Your task to perform on an android device: turn on priority inbox in the gmail app Image 0: 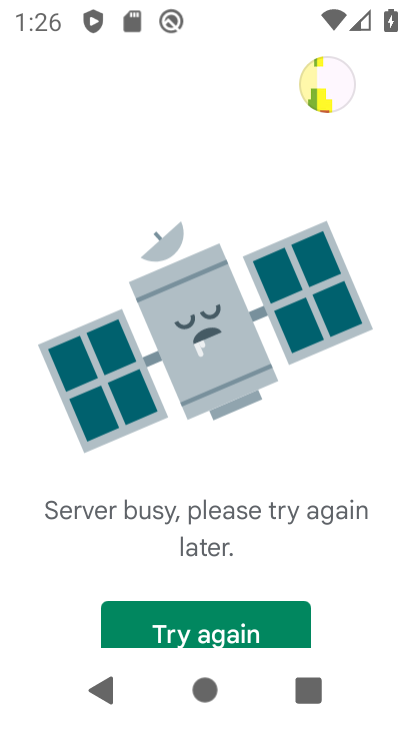
Step 0: press home button
Your task to perform on an android device: turn on priority inbox in the gmail app Image 1: 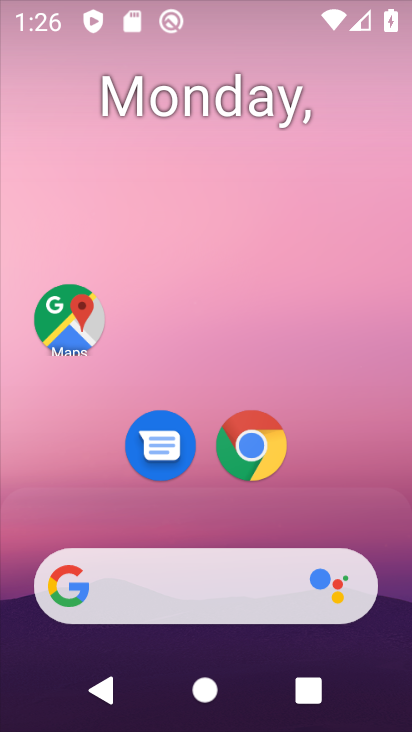
Step 1: drag from (210, 521) to (232, 33)
Your task to perform on an android device: turn on priority inbox in the gmail app Image 2: 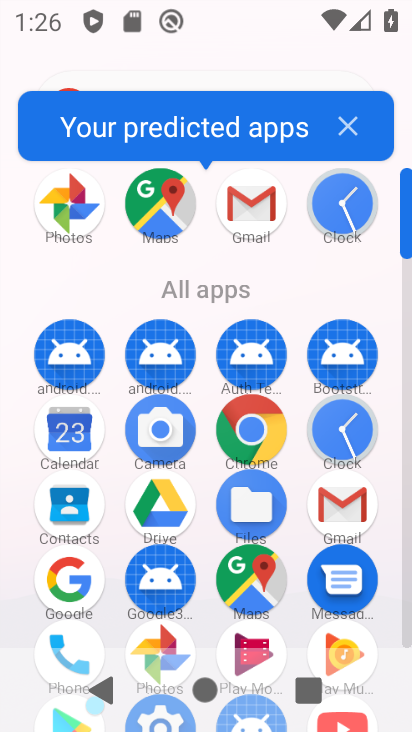
Step 2: click (259, 192)
Your task to perform on an android device: turn on priority inbox in the gmail app Image 3: 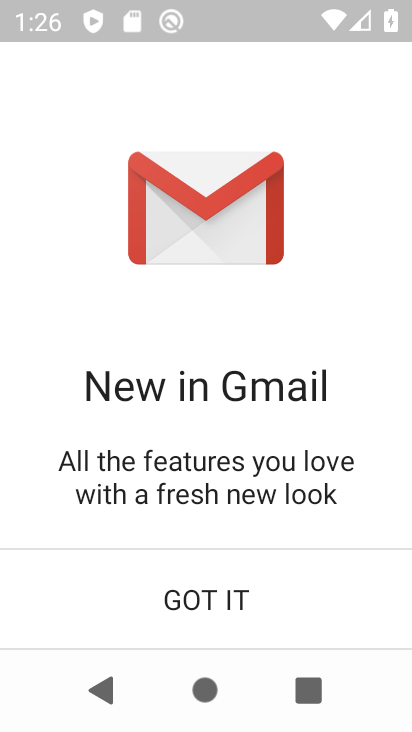
Step 3: click (206, 591)
Your task to perform on an android device: turn on priority inbox in the gmail app Image 4: 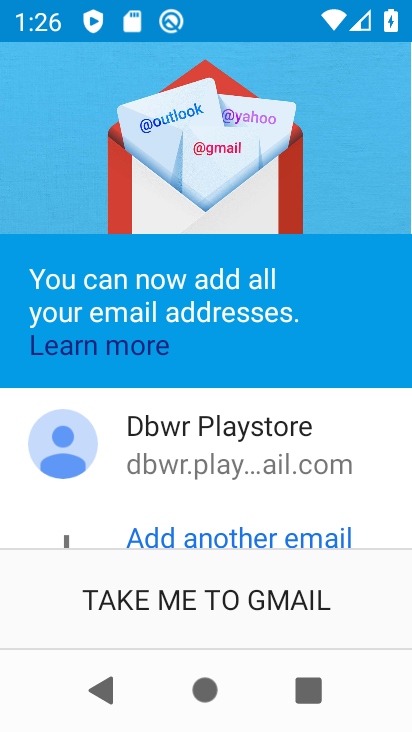
Step 4: click (230, 612)
Your task to perform on an android device: turn on priority inbox in the gmail app Image 5: 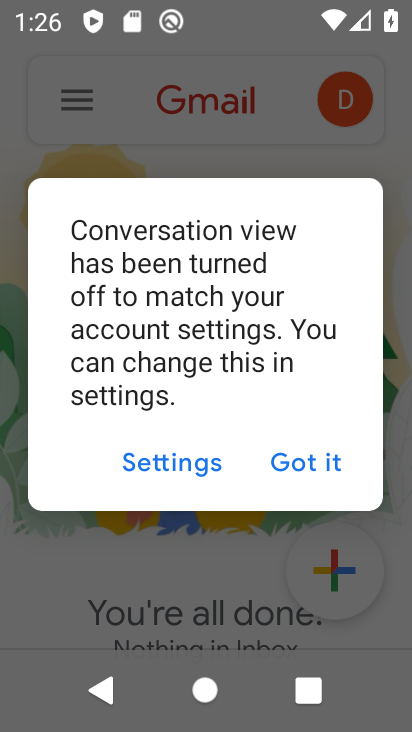
Step 5: click (303, 473)
Your task to perform on an android device: turn on priority inbox in the gmail app Image 6: 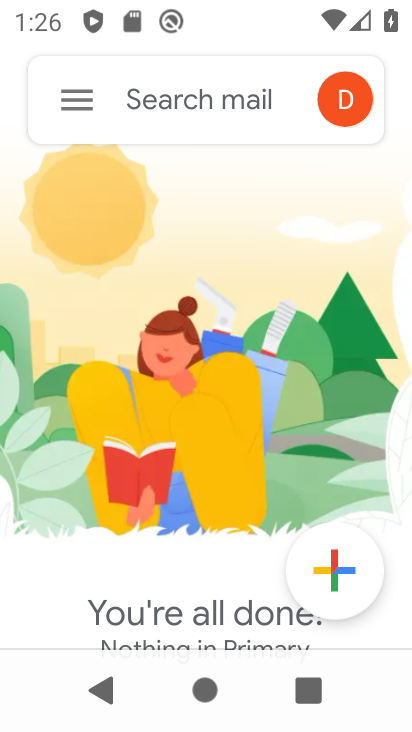
Step 6: click (85, 110)
Your task to perform on an android device: turn on priority inbox in the gmail app Image 7: 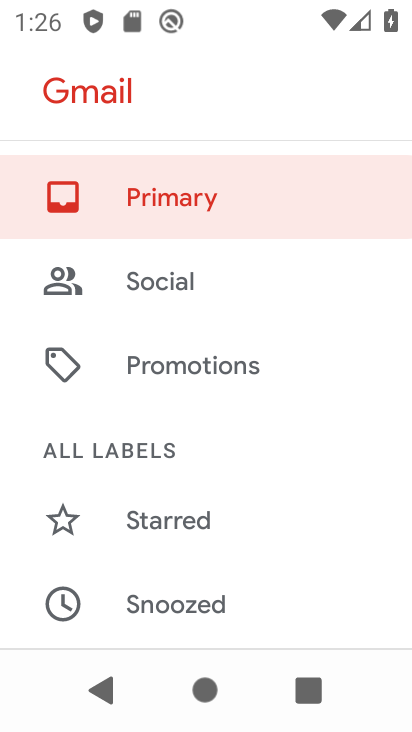
Step 7: drag from (190, 557) to (218, 63)
Your task to perform on an android device: turn on priority inbox in the gmail app Image 8: 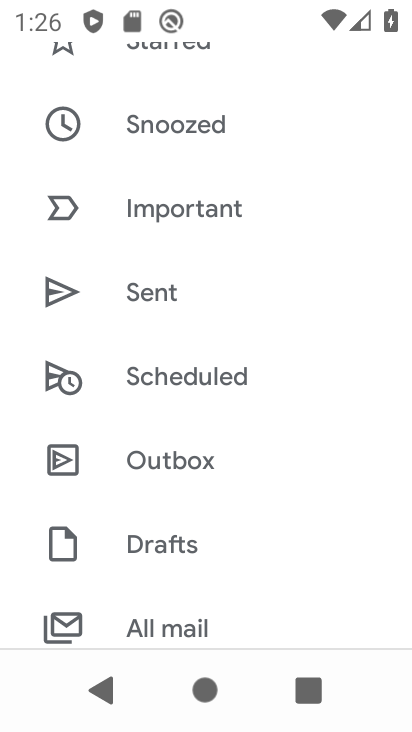
Step 8: drag from (190, 572) to (254, 61)
Your task to perform on an android device: turn on priority inbox in the gmail app Image 9: 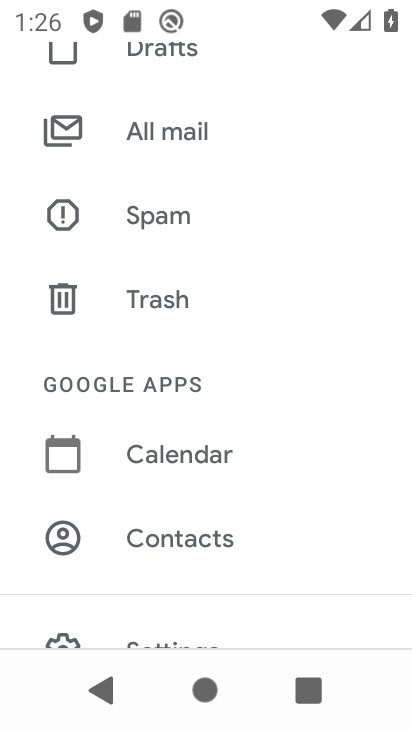
Step 9: click (157, 628)
Your task to perform on an android device: turn on priority inbox in the gmail app Image 10: 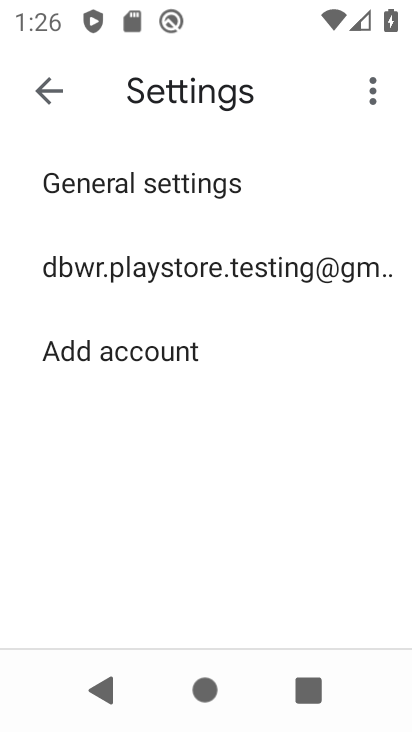
Step 10: click (141, 245)
Your task to perform on an android device: turn on priority inbox in the gmail app Image 11: 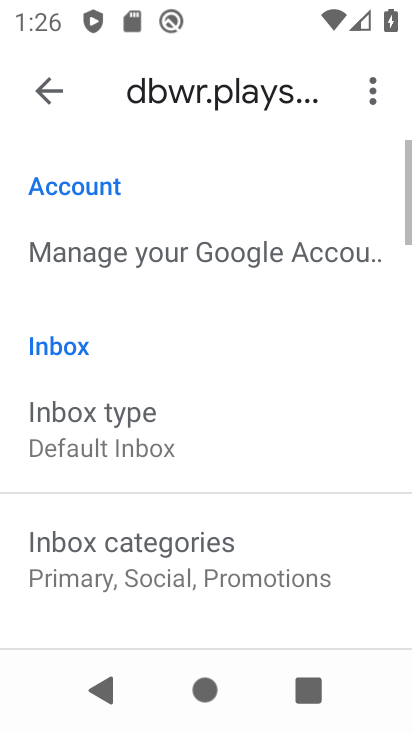
Step 11: drag from (197, 591) to (194, 342)
Your task to perform on an android device: turn on priority inbox in the gmail app Image 12: 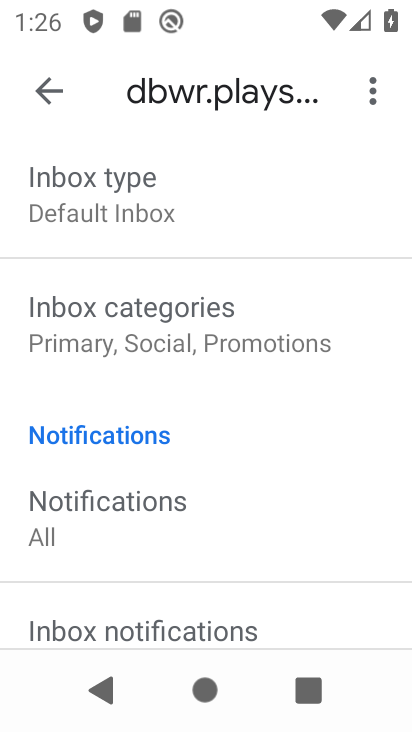
Step 12: click (153, 215)
Your task to perform on an android device: turn on priority inbox in the gmail app Image 13: 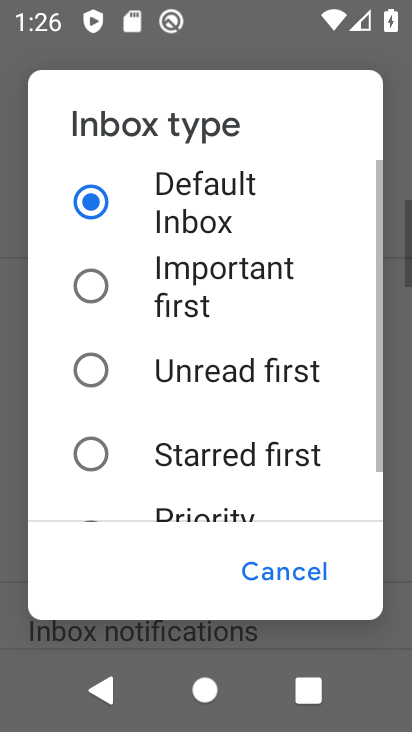
Step 13: drag from (132, 428) to (142, 194)
Your task to perform on an android device: turn on priority inbox in the gmail app Image 14: 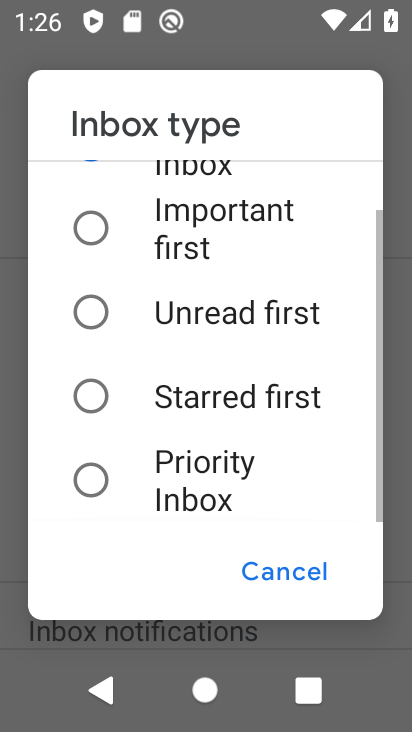
Step 14: click (99, 474)
Your task to perform on an android device: turn on priority inbox in the gmail app Image 15: 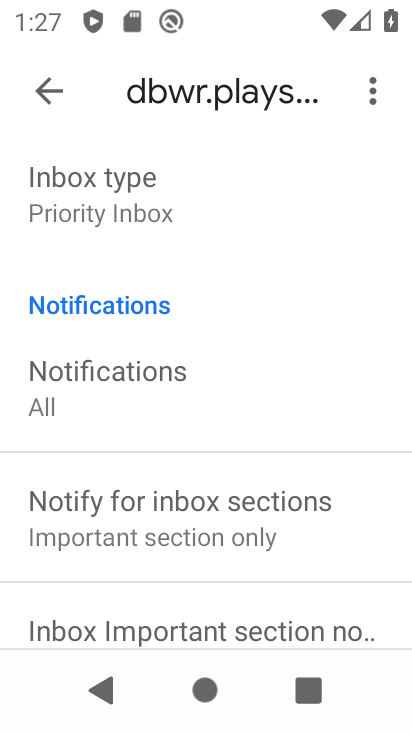
Step 15: task complete